Your task to perform on an android device: Add "apple airpods" to the cart on costco.com Image 0: 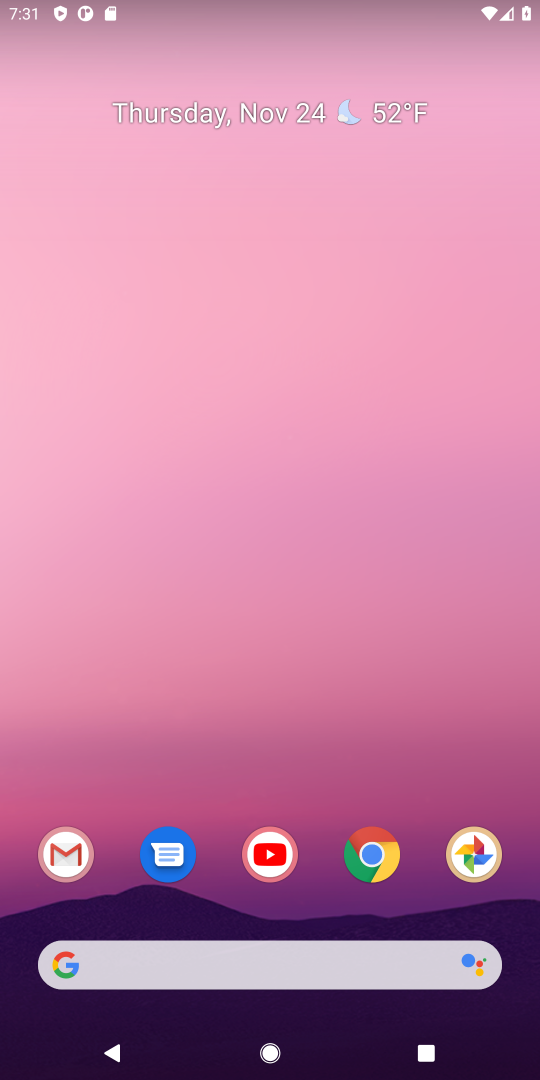
Step 0: click (383, 851)
Your task to perform on an android device: Add "apple airpods" to the cart on costco.com Image 1: 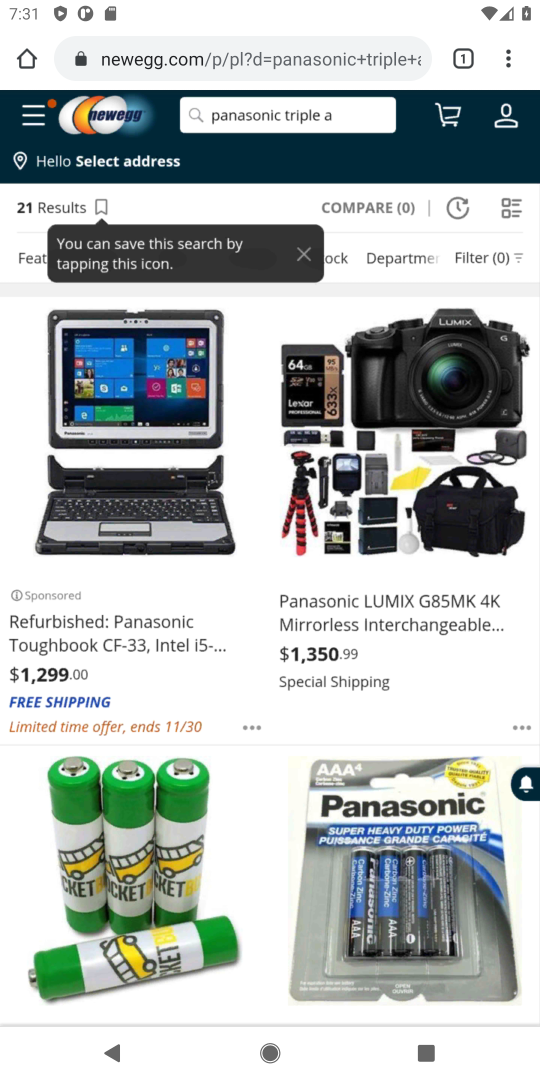
Step 1: click (210, 62)
Your task to perform on an android device: Add "apple airpods" to the cart on costco.com Image 2: 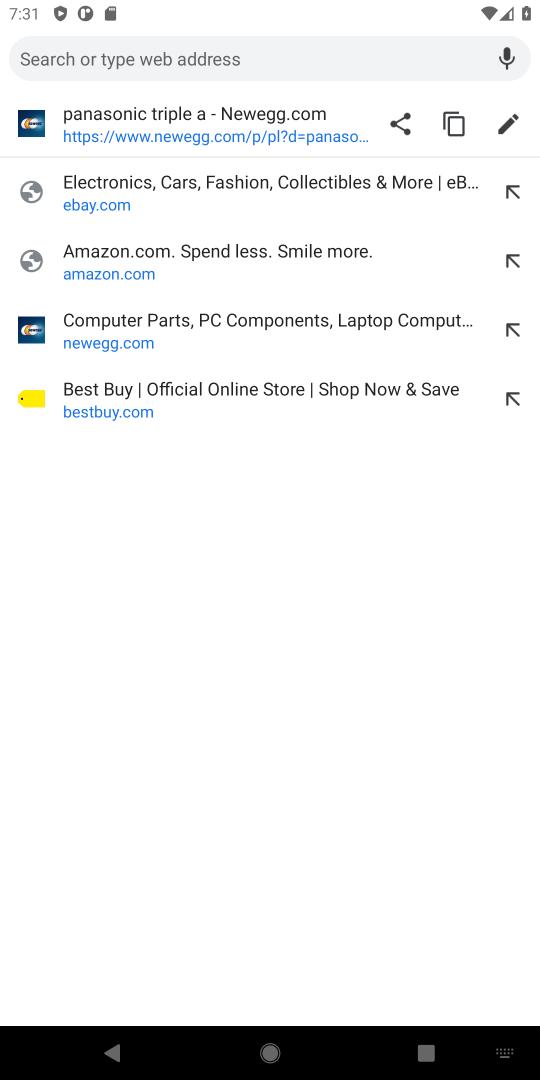
Step 2: type "costco.com"
Your task to perform on an android device: Add "apple airpods" to the cart on costco.com Image 3: 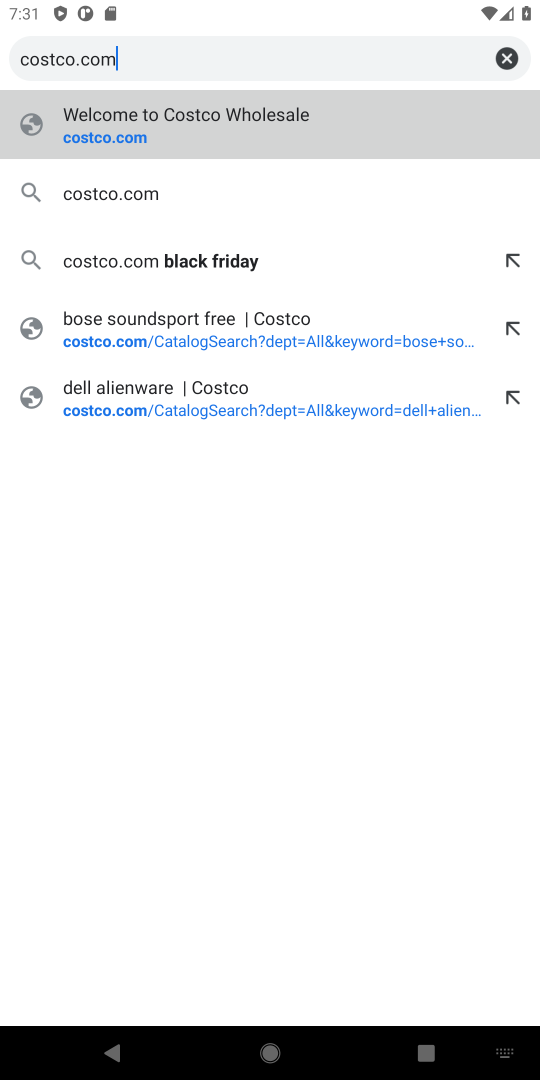
Step 3: click (88, 129)
Your task to perform on an android device: Add "apple airpods" to the cart on costco.com Image 4: 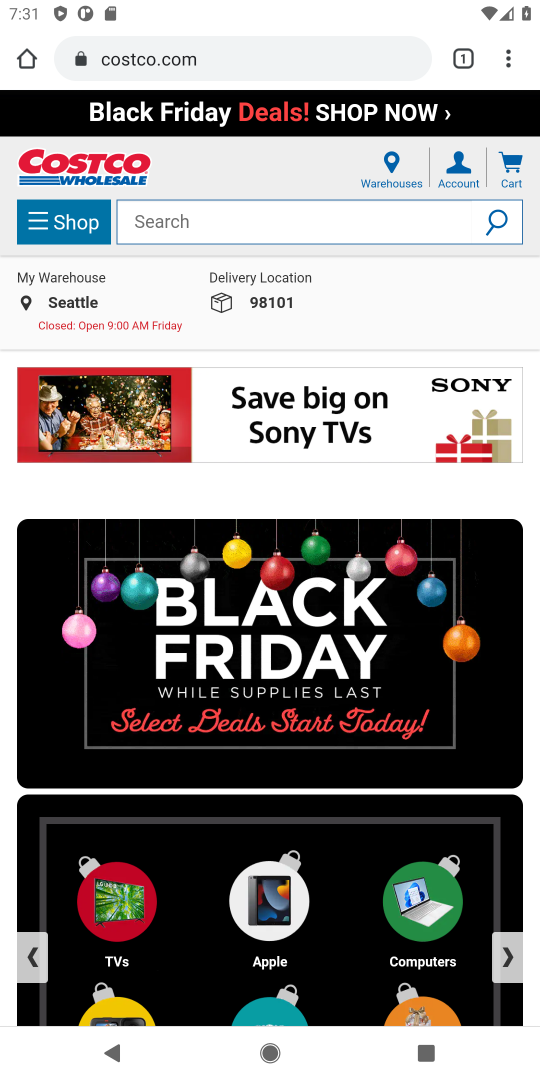
Step 4: click (188, 229)
Your task to perform on an android device: Add "apple airpods" to the cart on costco.com Image 5: 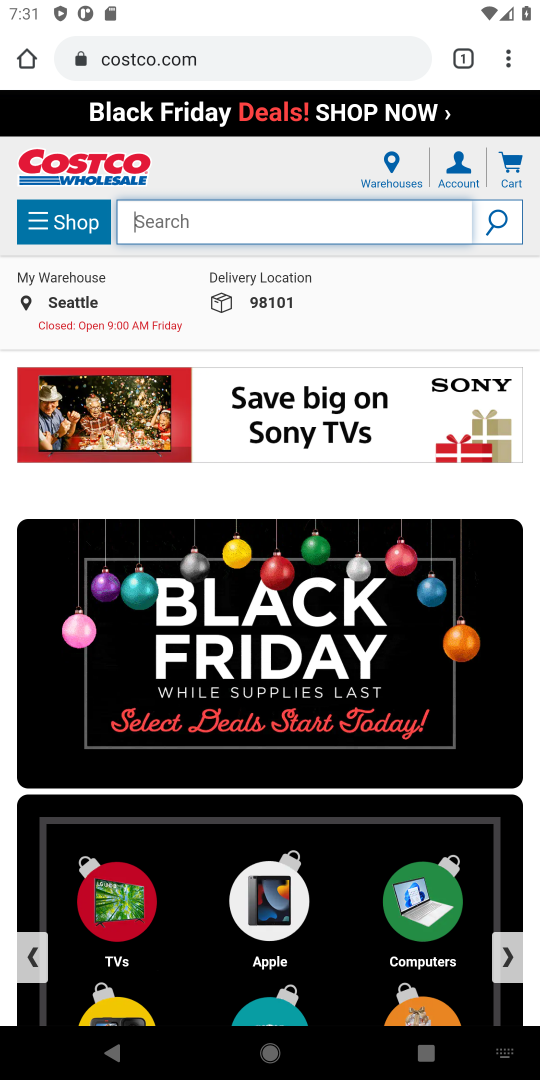
Step 5: type "apple airpods"
Your task to perform on an android device: Add "apple airpods" to the cart on costco.com Image 6: 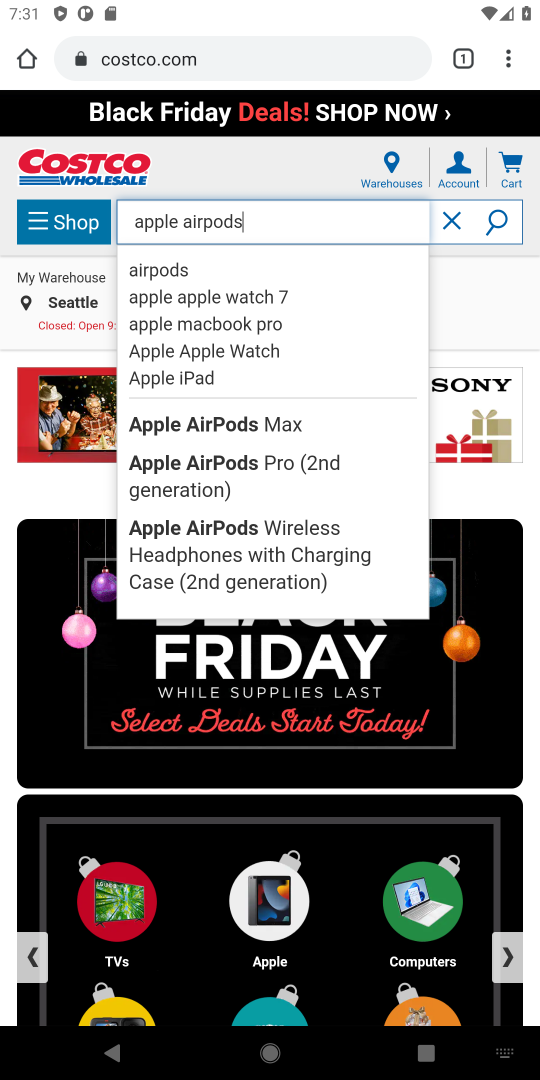
Step 6: click (497, 223)
Your task to perform on an android device: Add "apple airpods" to the cart on costco.com Image 7: 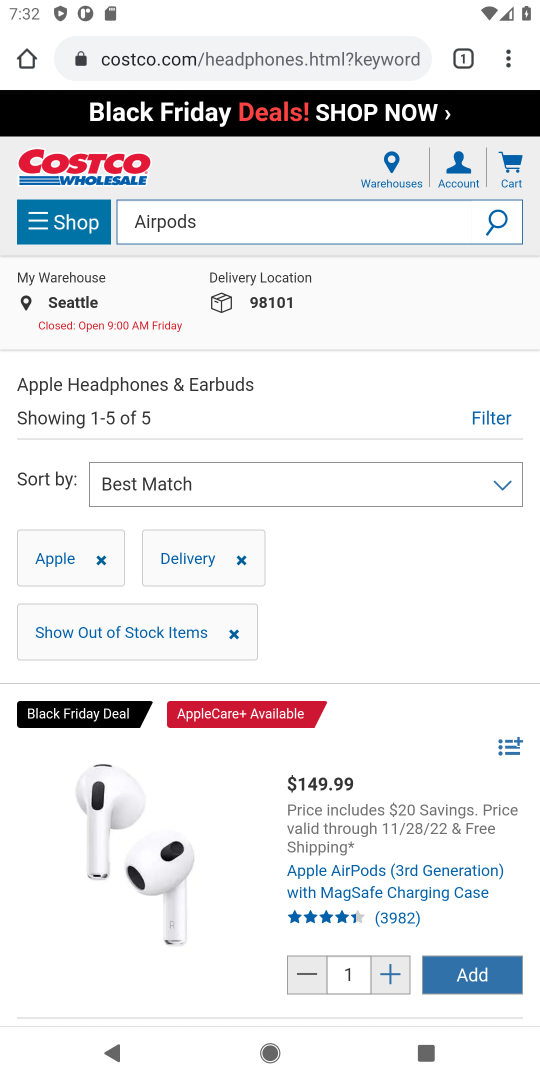
Step 7: drag from (287, 627) to (317, 410)
Your task to perform on an android device: Add "apple airpods" to the cart on costco.com Image 8: 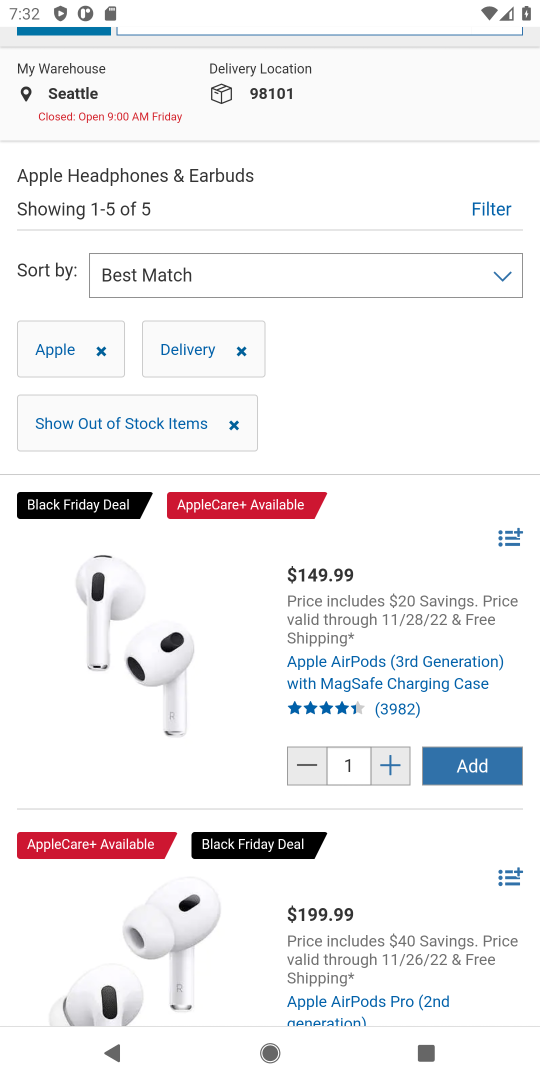
Step 8: click (471, 770)
Your task to perform on an android device: Add "apple airpods" to the cart on costco.com Image 9: 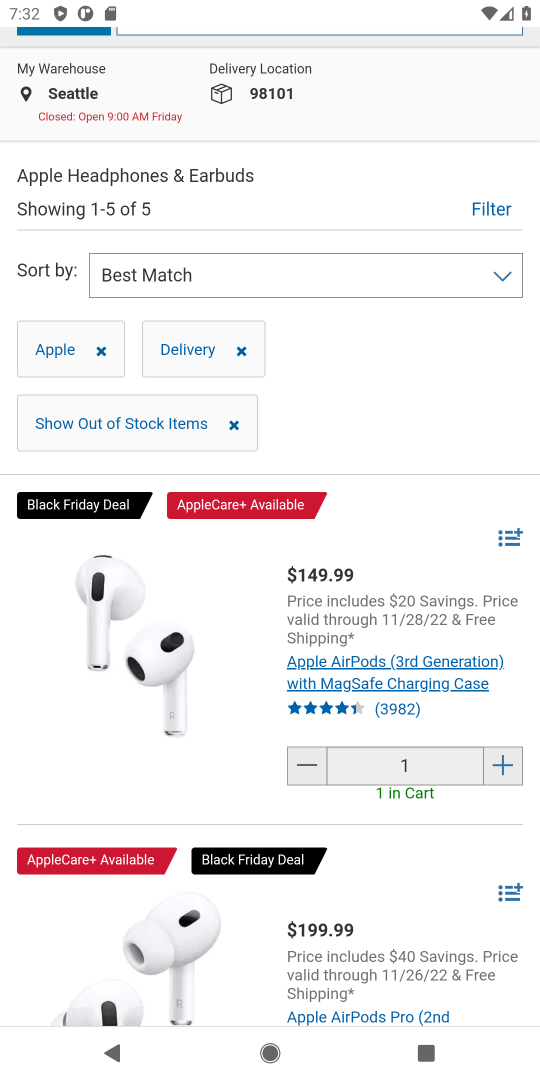
Step 9: task complete